Your task to perform on an android device: Search for "bose quietcomfort 35" on costco.com, select the first entry, and add it to the cart. Image 0: 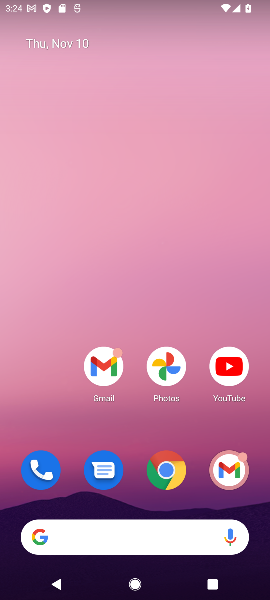
Step 0: click (126, 535)
Your task to perform on an android device: Search for "bose quietcomfort 35" on costco.com, select the first entry, and add it to the cart. Image 1: 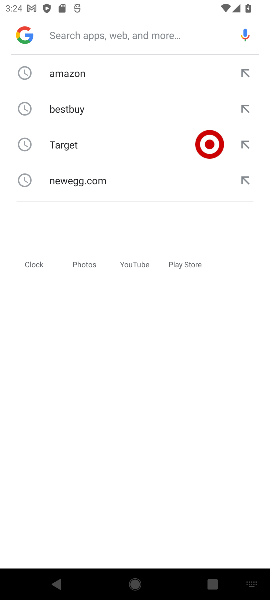
Step 1: press home button
Your task to perform on an android device: Search for "bose quietcomfort 35" on costco.com, select the first entry, and add it to the cart. Image 2: 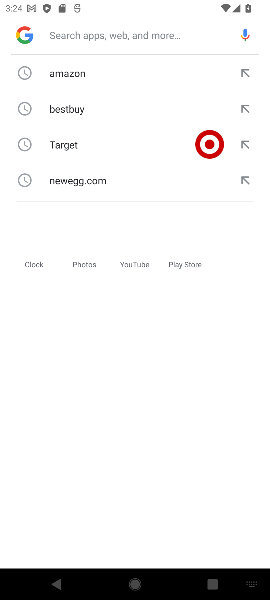
Step 2: type "bose quietcomfort 35"
Your task to perform on an android device: Search for "bose quietcomfort 35" on costco.com, select the first entry, and add it to the cart. Image 3: 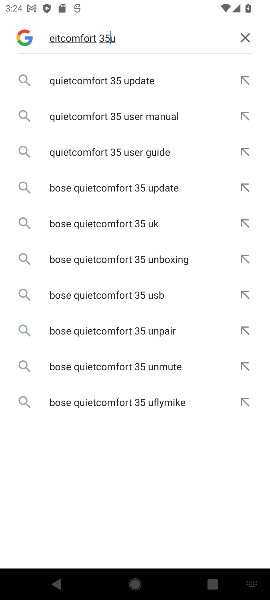
Step 3: press home button
Your task to perform on an android device: Search for "bose quietcomfort 35" on costco.com, select the first entry, and add it to the cart. Image 4: 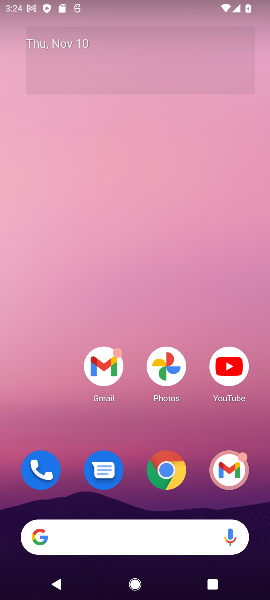
Step 4: click (162, 474)
Your task to perform on an android device: Search for "bose quietcomfort 35" on costco.com, select the first entry, and add it to the cart. Image 5: 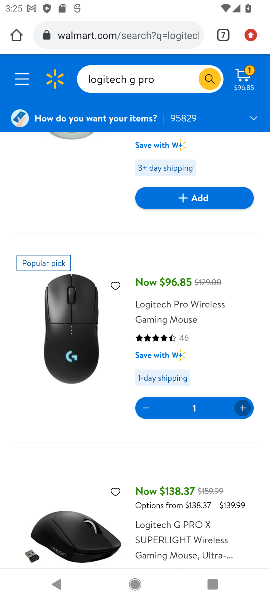
Step 5: click (225, 40)
Your task to perform on an android device: Search for "bose quietcomfort 35" on costco.com, select the first entry, and add it to the cart. Image 6: 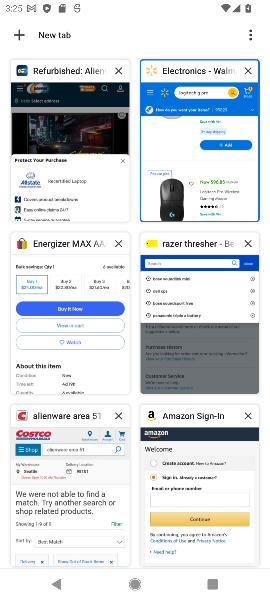
Step 6: click (47, 497)
Your task to perform on an android device: Search for "bose quietcomfort 35" on costco.com, select the first entry, and add it to the cart. Image 7: 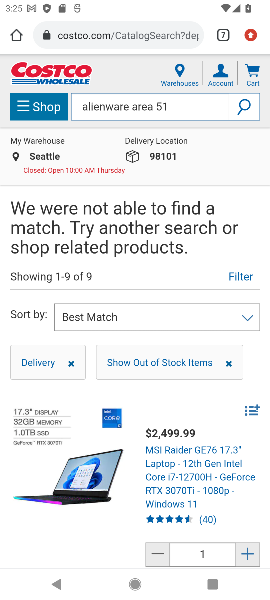
Step 7: click (176, 105)
Your task to perform on an android device: Search for "bose quietcomfort 35" on costco.com, select the first entry, and add it to the cart. Image 8: 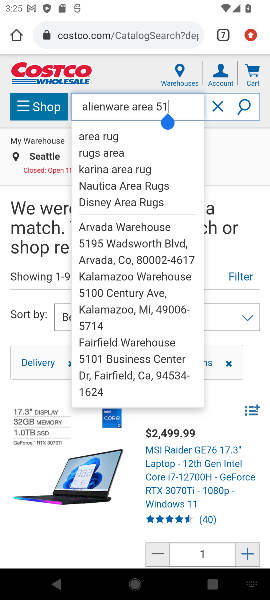
Step 8: click (215, 105)
Your task to perform on an android device: Search for "bose quietcomfort 35" on costco.com, select the first entry, and add it to the cart. Image 9: 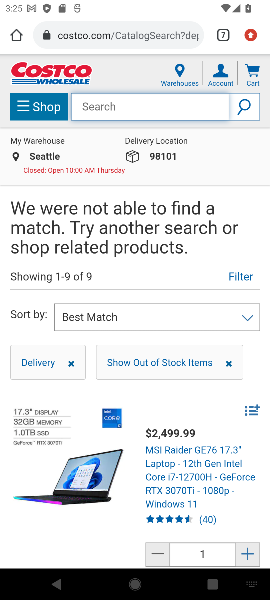
Step 9: type "bose quietcomfort 35"
Your task to perform on an android device: Search for "bose quietcomfort 35" on costco.com, select the first entry, and add it to the cart. Image 10: 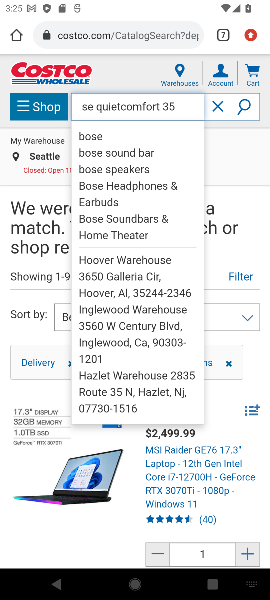
Step 10: click (240, 102)
Your task to perform on an android device: Search for "bose quietcomfort 35" on costco.com, select the first entry, and add it to the cart. Image 11: 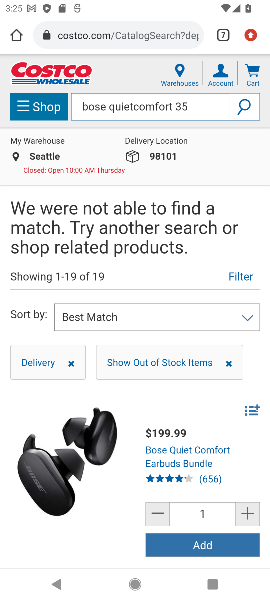
Step 11: click (210, 545)
Your task to perform on an android device: Search for "bose quietcomfort 35" on costco.com, select the first entry, and add it to the cart. Image 12: 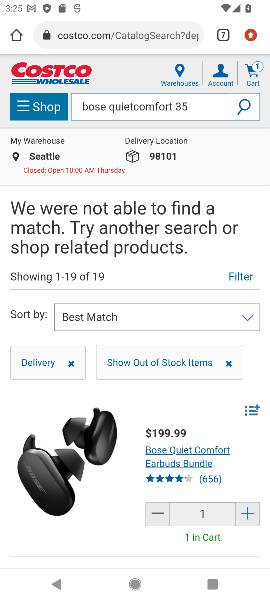
Step 12: task complete